Your task to perform on an android device: turn off improve location accuracy Image 0: 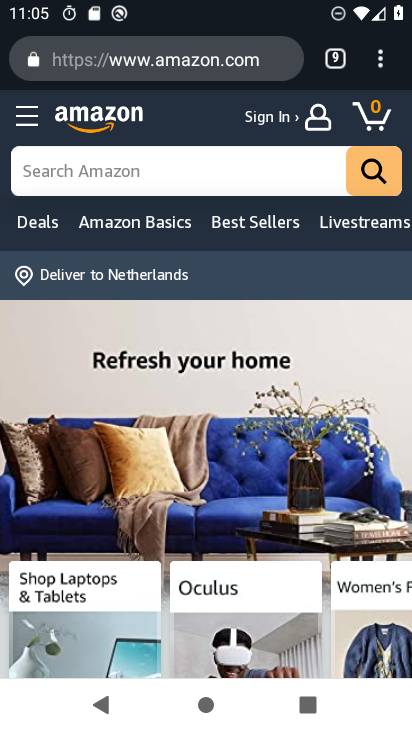
Step 0: press home button
Your task to perform on an android device: turn off improve location accuracy Image 1: 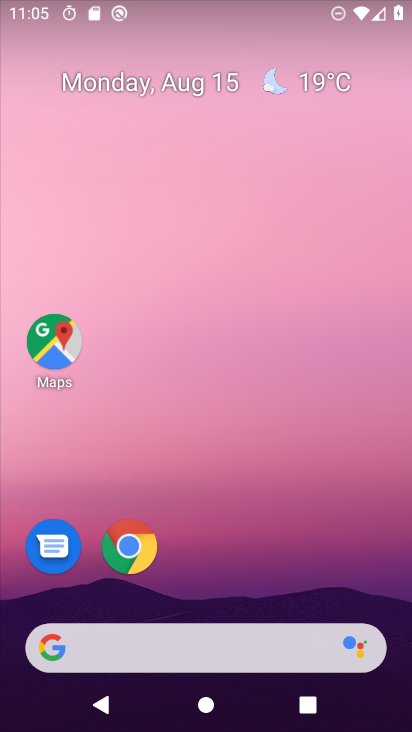
Step 1: drag from (222, 537) to (211, 103)
Your task to perform on an android device: turn off improve location accuracy Image 2: 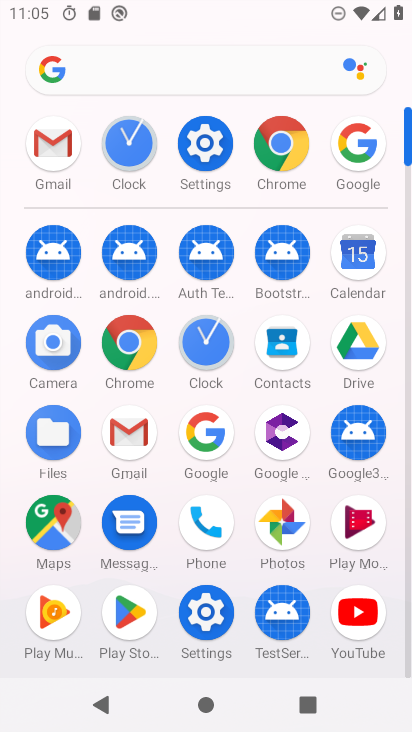
Step 2: click (208, 145)
Your task to perform on an android device: turn off improve location accuracy Image 3: 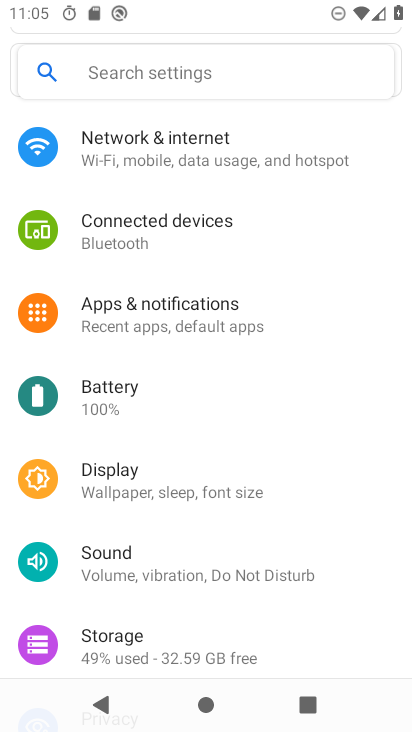
Step 3: drag from (125, 592) to (125, 239)
Your task to perform on an android device: turn off improve location accuracy Image 4: 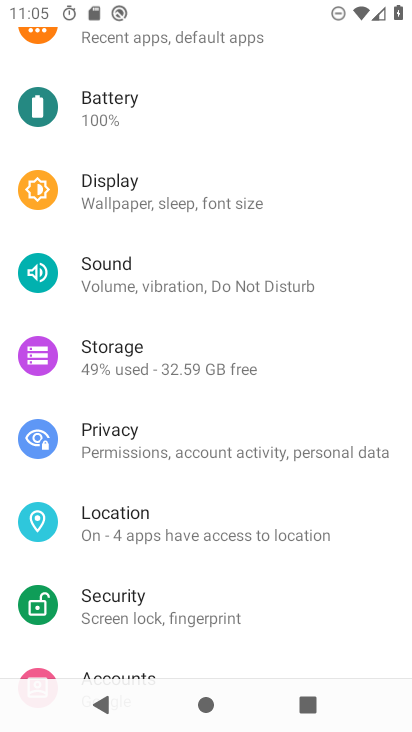
Step 4: click (124, 519)
Your task to perform on an android device: turn off improve location accuracy Image 5: 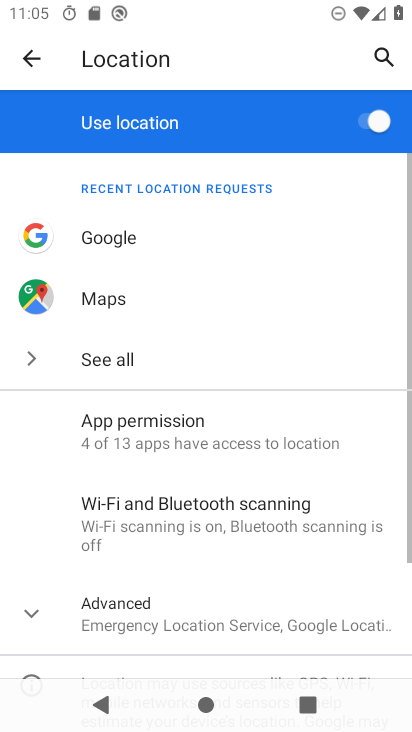
Step 5: click (110, 616)
Your task to perform on an android device: turn off improve location accuracy Image 6: 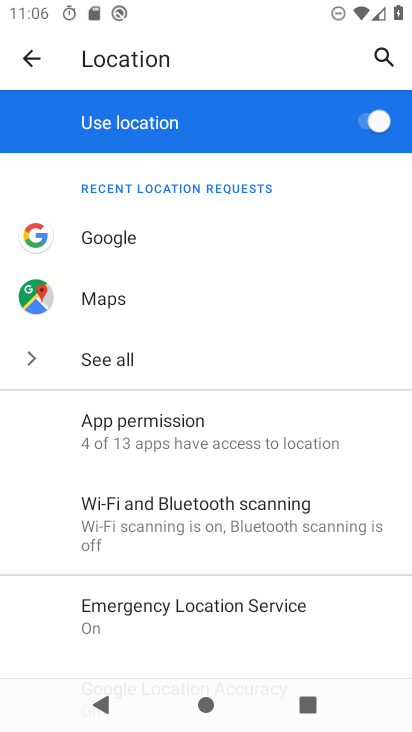
Step 6: drag from (136, 617) to (155, 316)
Your task to perform on an android device: turn off improve location accuracy Image 7: 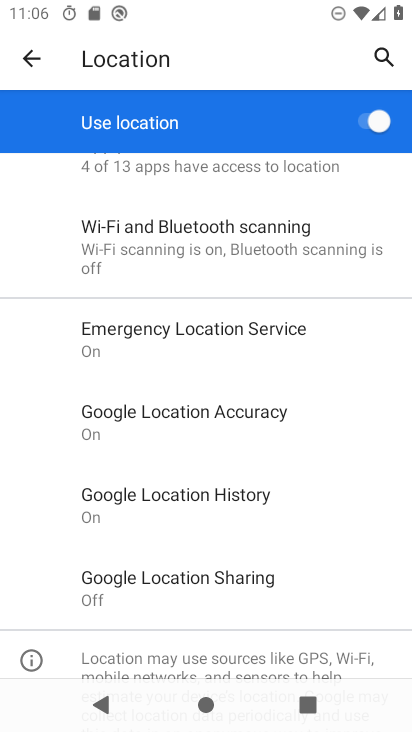
Step 7: click (208, 419)
Your task to perform on an android device: turn off improve location accuracy Image 8: 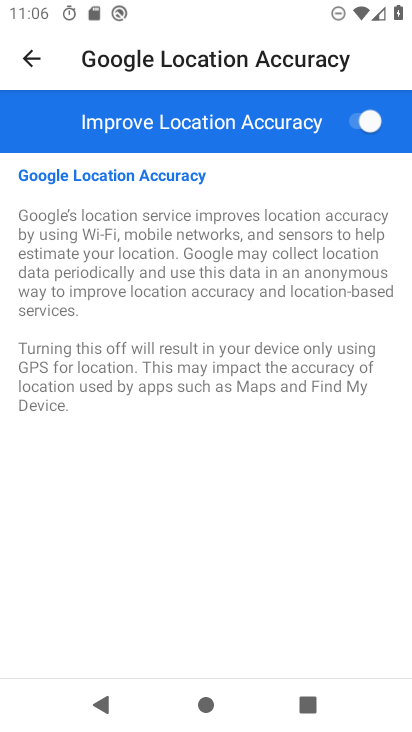
Step 8: click (356, 120)
Your task to perform on an android device: turn off improve location accuracy Image 9: 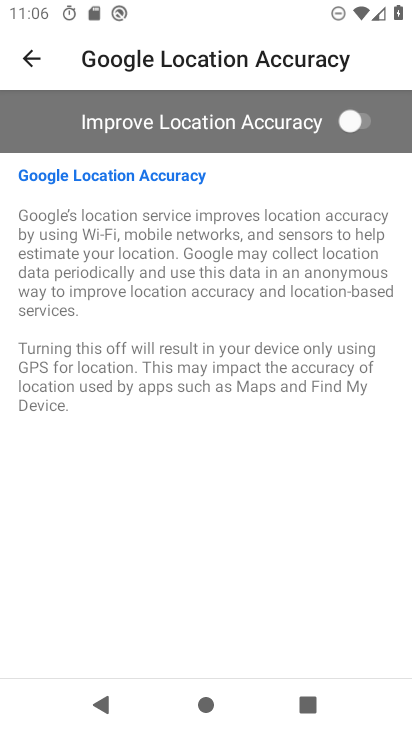
Step 9: task complete